Your task to perform on an android device: Go to battery settings Image 0: 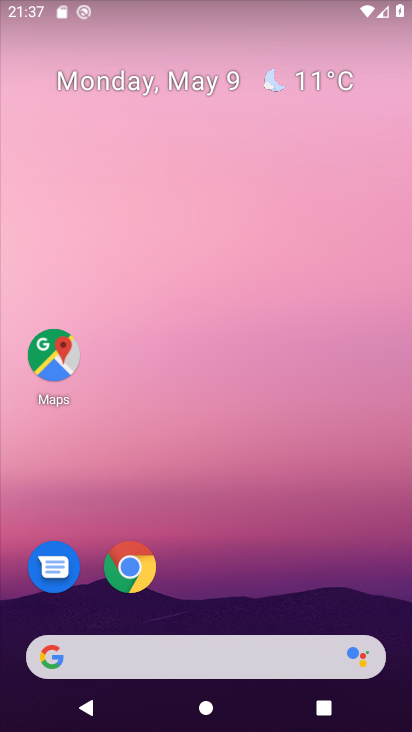
Step 0: drag from (250, 539) to (238, 83)
Your task to perform on an android device: Go to battery settings Image 1: 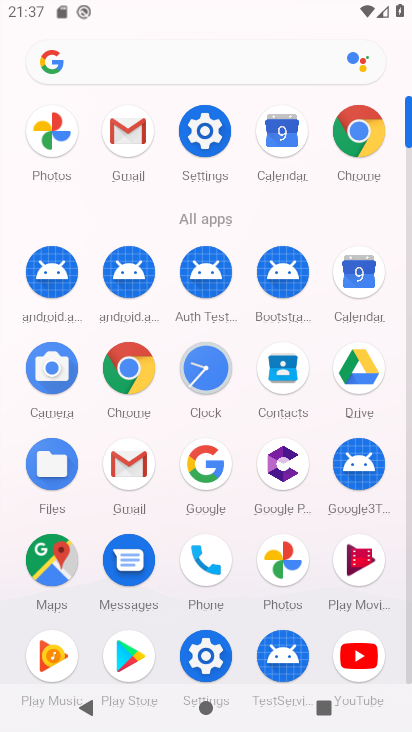
Step 1: click (197, 139)
Your task to perform on an android device: Go to battery settings Image 2: 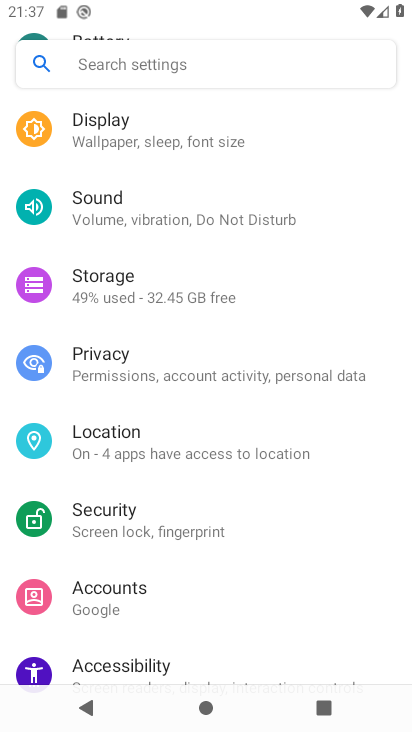
Step 2: drag from (193, 178) to (189, 574)
Your task to perform on an android device: Go to battery settings Image 3: 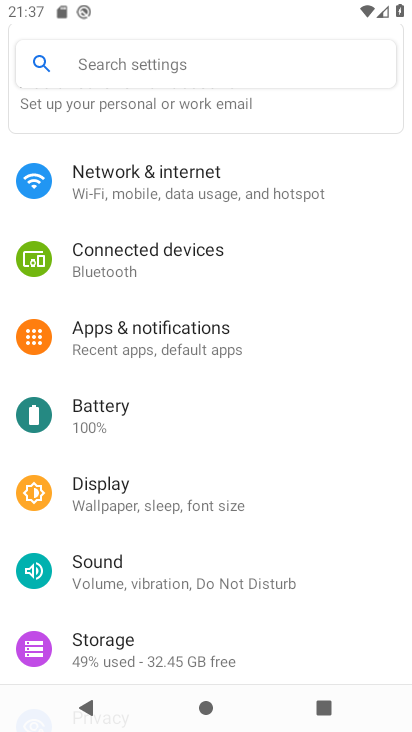
Step 3: click (140, 409)
Your task to perform on an android device: Go to battery settings Image 4: 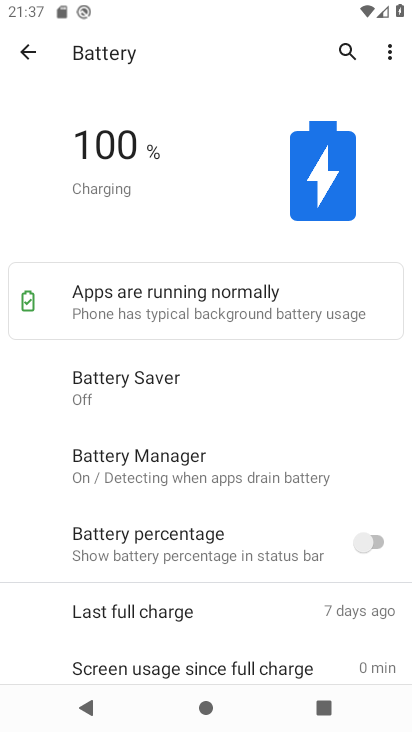
Step 4: click (390, 52)
Your task to perform on an android device: Go to battery settings Image 5: 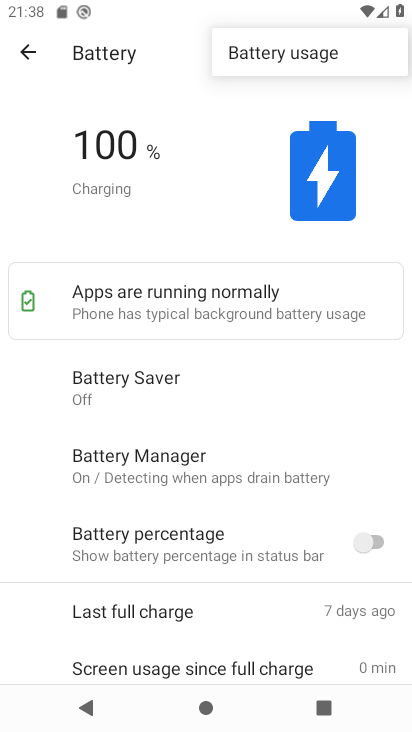
Step 5: task complete